Your task to perform on an android device: Open Wikipedia Image 0: 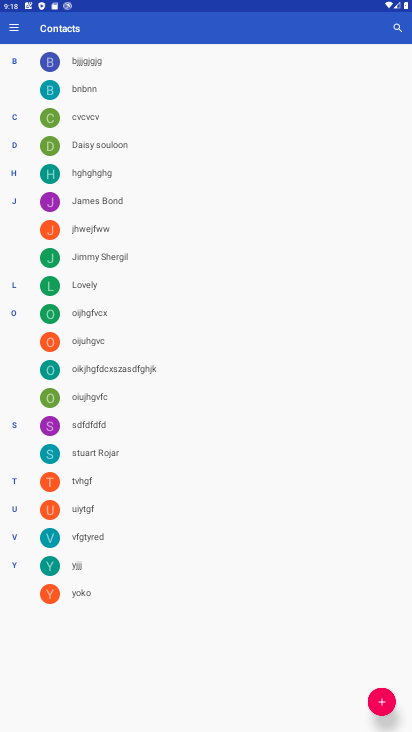
Step 0: drag from (230, 538) to (278, 117)
Your task to perform on an android device: Open Wikipedia Image 1: 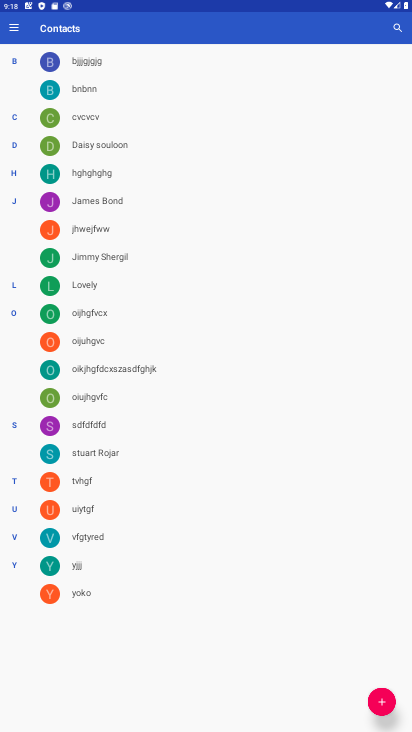
Step 1: press home button
Your task to perform on an android device: Open Wikipedia Image 2: 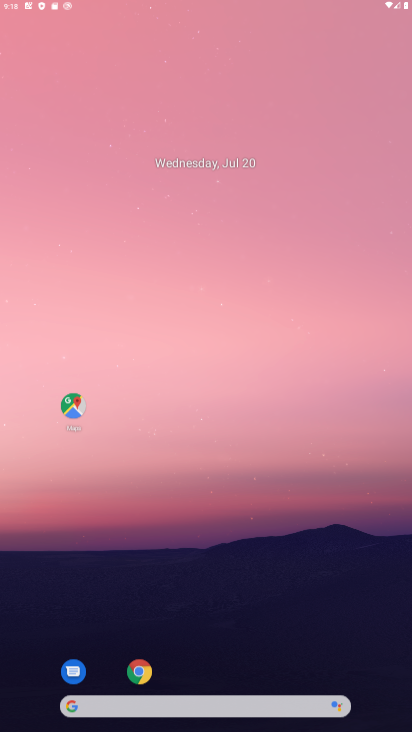
Step 2: drag from (150, 637) to (257, 0)
Your task to perform on an android device: Open Wikipedia Image 3: 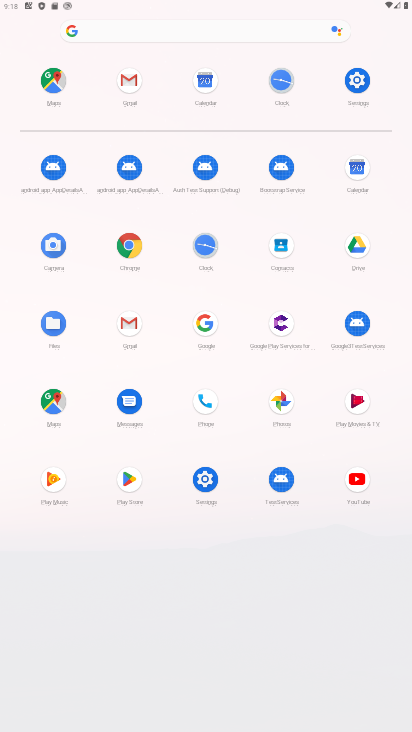
Step 3: click (148, 25)
Your task to perform on an android device: Open Wikipedia Image 4: 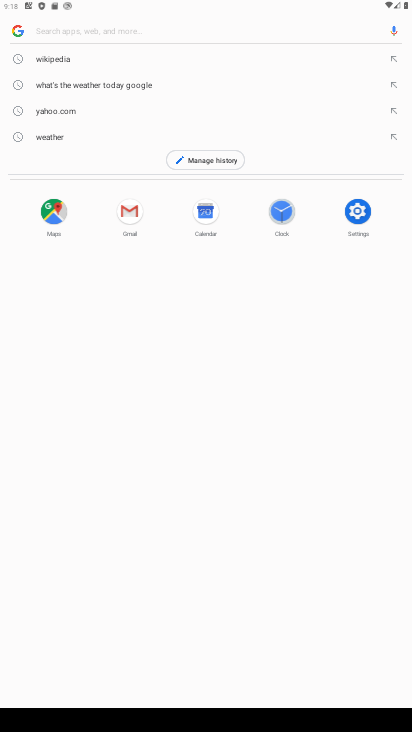
Step 4: click (69, 62)
Your task to perform on an android device: Open Wikipedia Image 5: 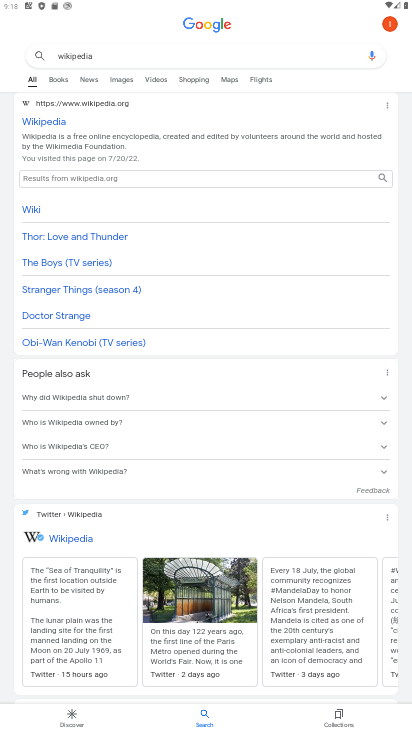
Step 5: click (37, 122)
Your task to perform on an android device: Open Wikipedia Image 6: 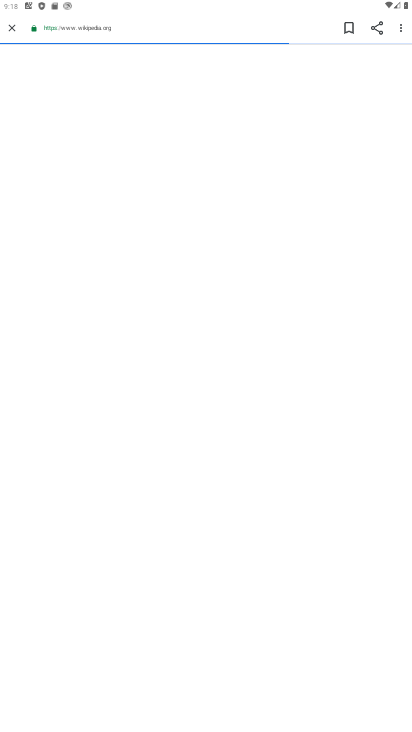
Step 6: task complete